Your task to perform on an android device: toggle data saver in the chrome app Image 0: 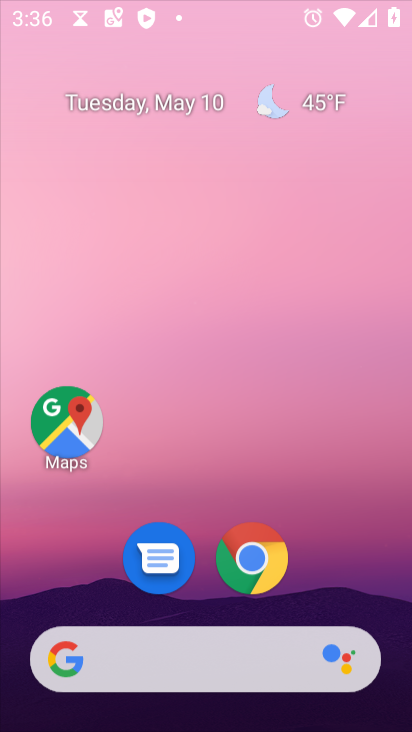
Step 0: press back button
Your task to perform on an android device: toggle data saver in the chrome app Image 1: 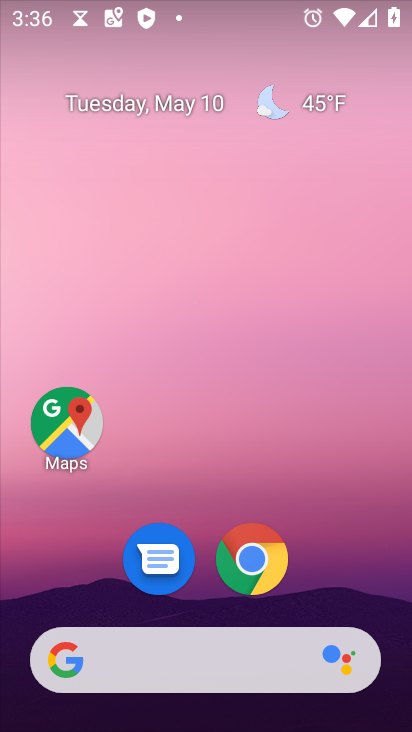
Step 1: drag from (296, 455) to (91, 3)
Your task to perform on an android device: toggle data saver in the chrome app Image 2: 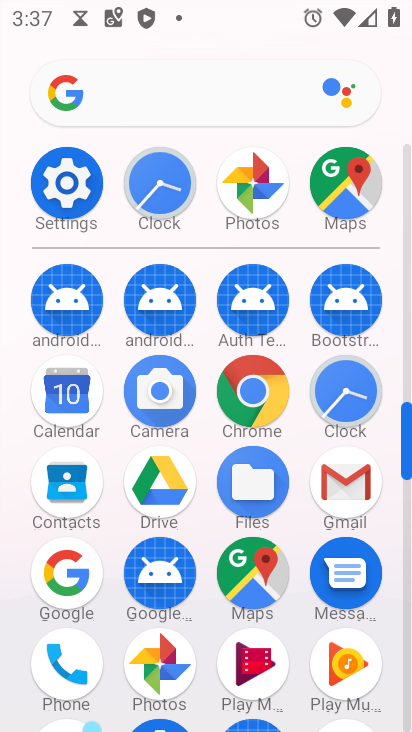
Step 2: click (261, 394)
Your task to perform on an android device: toggle data saver in the chrome app Image 3: 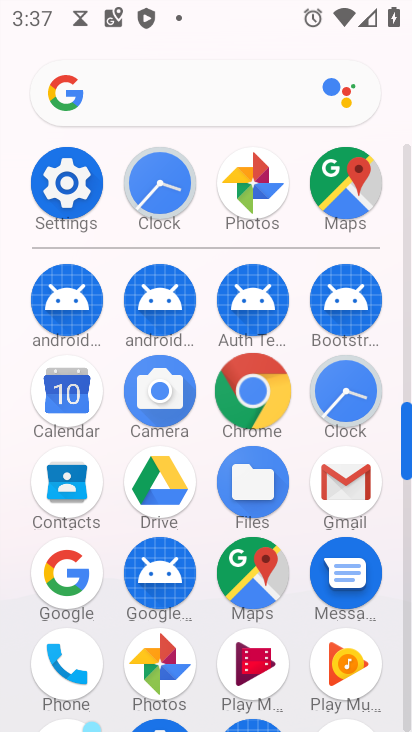
Step 3: click (261, 394)
Your task to perform on an android device: toggle data saver in the chrome app Image 4: 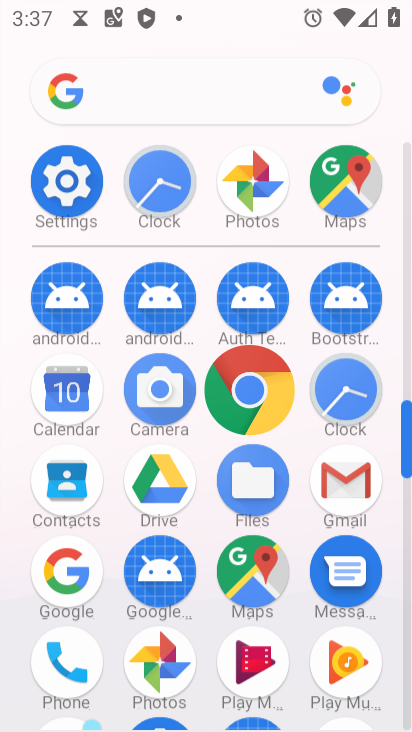
Step 4: click (261, 394)
Your task to perform on an android device: toggle data saver in the chrome app Image 5: 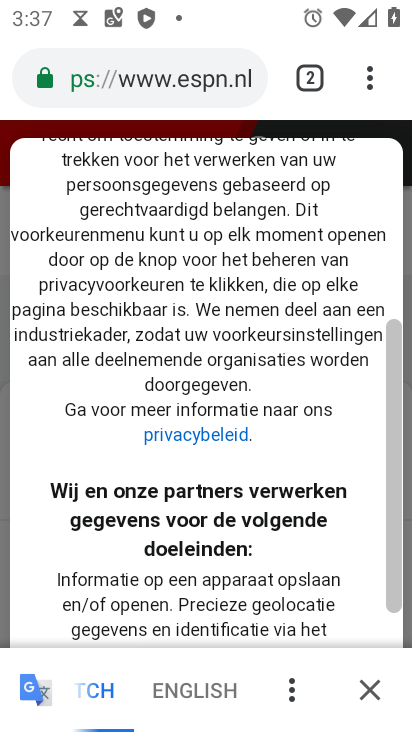
Step 5: press back button
Your task to perform on an android device: toggle data saver in the chrome app Image 6: 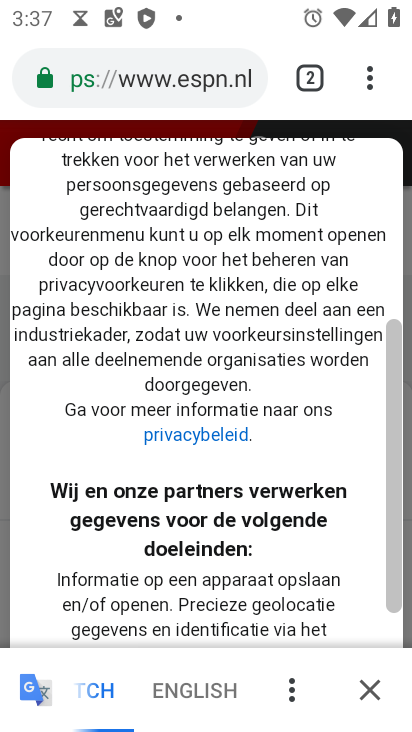
Step 6: press back button
Your task to perform on an android device: toggle data saver in the chrome app Image 7: 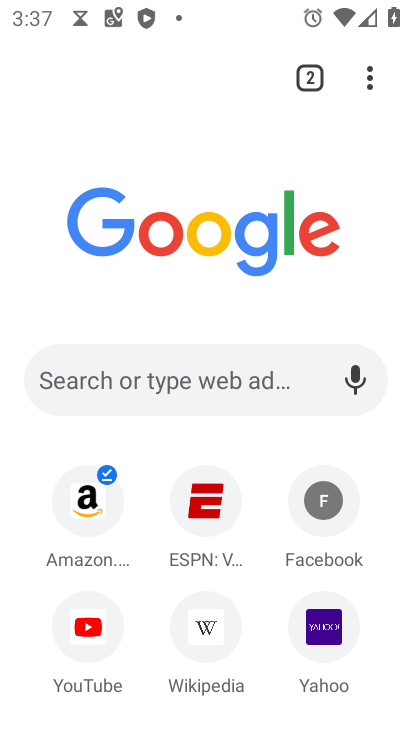
Step 7: press back button
Your task to perform on an android device: toggle data saver in the chrome app Image 8: 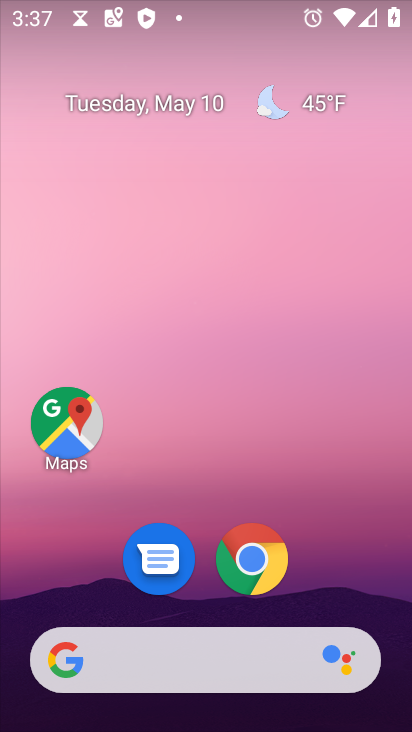
Step 8: drag from (344, 597) to (111, 12)
Your task to perform on an android device: toggle data saver in the chrome app Image 9: 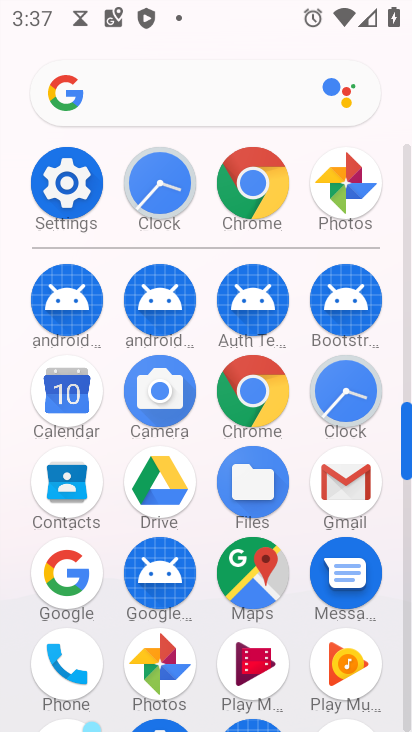
Step 9: click (258, 176)
Your task to perform on an android device: toggle data saver in the chrome app Image 10: 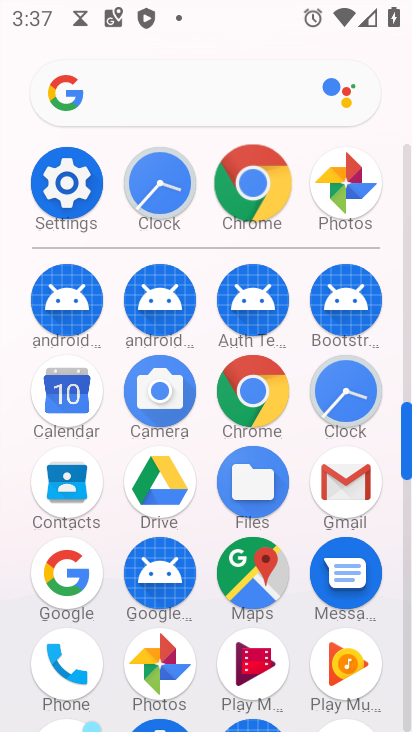
Step 10: click (257, 177)
Your task to perform on an android device: toggle data saver in the chrome app Image 11: 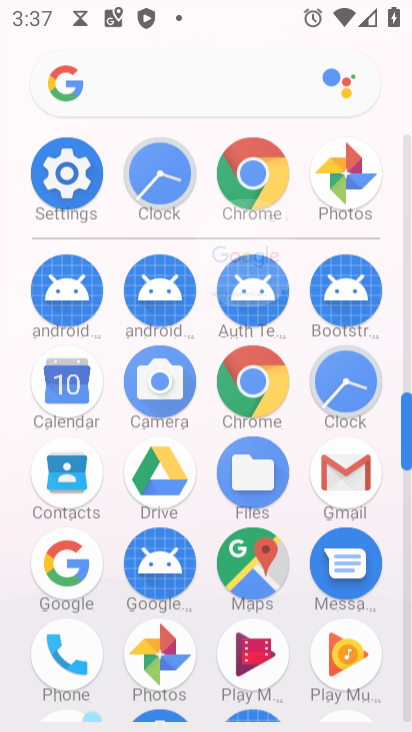
Step 11: click (257, 177)
Your task to perform on an android device: toggle data saver in the chrome app Image 12: 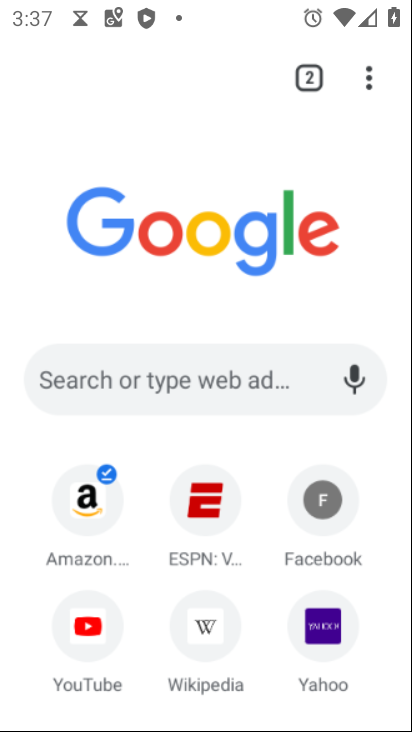
Step 12: click (256, 181)
Your task to perform on an android device: toggle data saver in the chrome app Image 13: 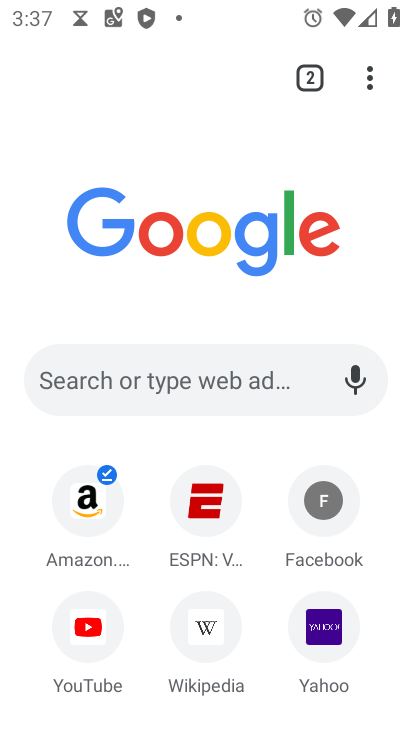
Step 13: drag from (366, 81) to (99, 610)
Your task to perform on an android device: toggle data saver in the chrome app Image 14: 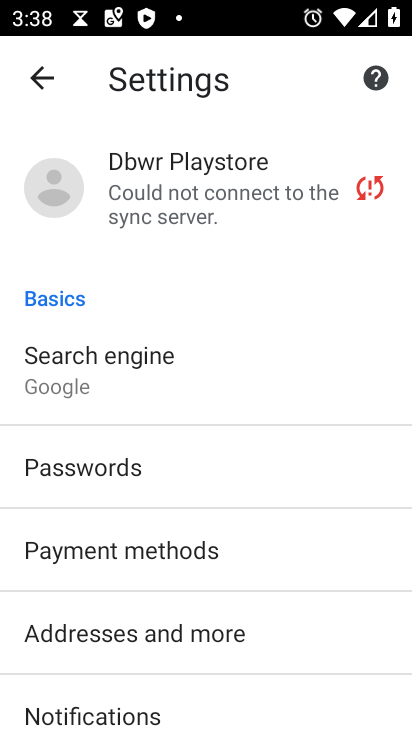
Step 14: drag from (188, 533) to (120, 27)
Your task to perform on an android device: toggle data saver in the chrome app Image 15: 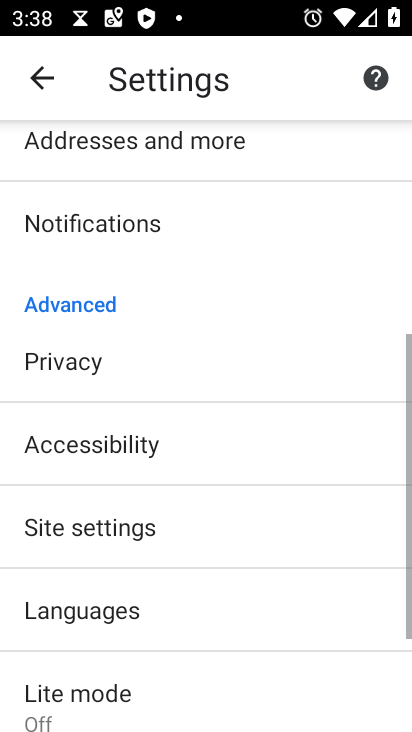
Step 15: drag from (236, 499) to (212, 226)
Your task to perform on an android device: toggle data saver in the chrome app Image 16: 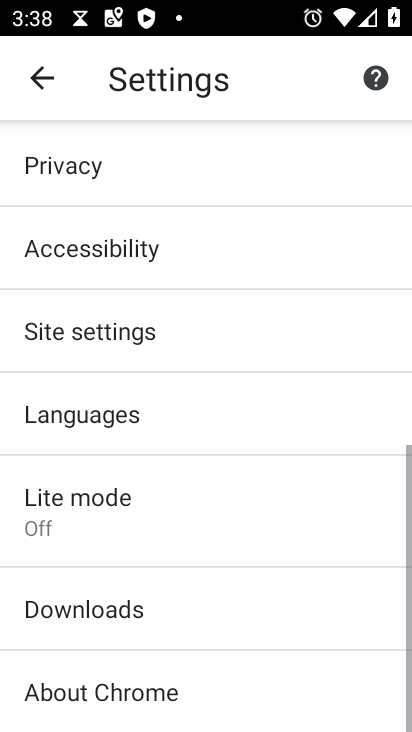
Step 16: drag from (167, 526) to (162, 134)
Your task to perform on an android device: toggle data saver in the chrome app Image 17: 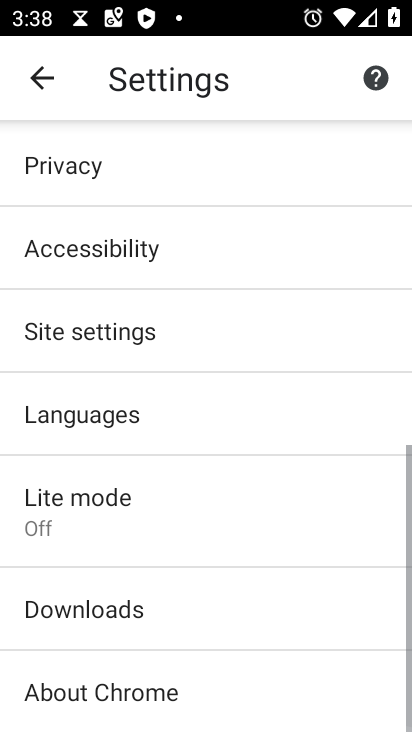
Step 17: drag from (141, 594) to (138, 273)
Your task to perform on an android device: toggle data saver in the chrome app Image 18: 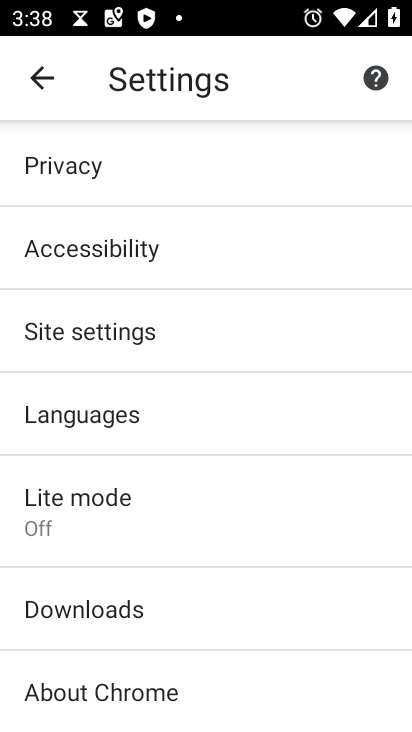
Step 18: click (56, 496)
Your task to perform on an android device: toggle data saver in the chrome app Image 19: 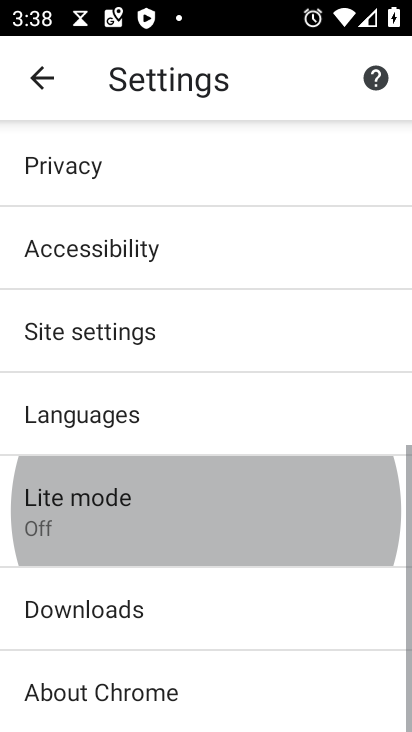
Step 19: click (58, 498)
Your task to perform on an android device: toggle data saver in the chrome app Image 20: 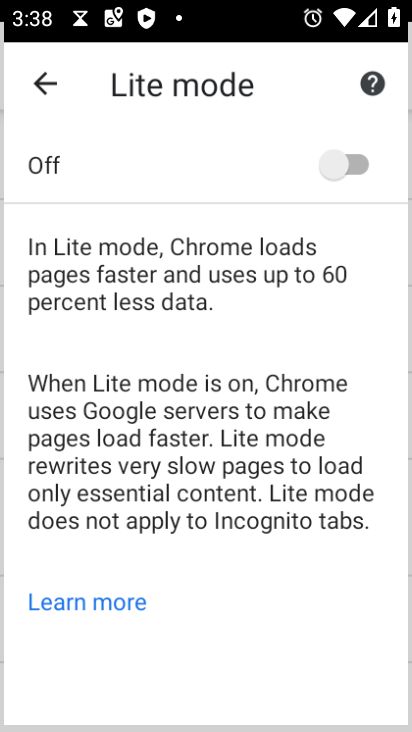
Step 20: click (60, 497)
Your task to perform on an android device: toggle data saver in the chrome app Image 21: 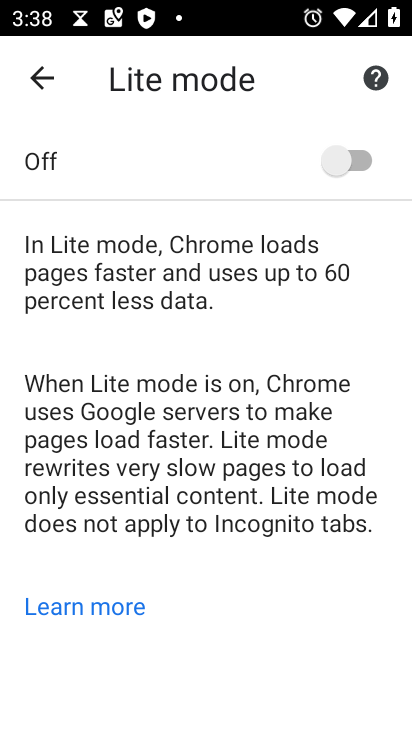
Step 21: click (65, 497)
Your task to perform on an android device: toggle data saver in the chrome app Image 22: 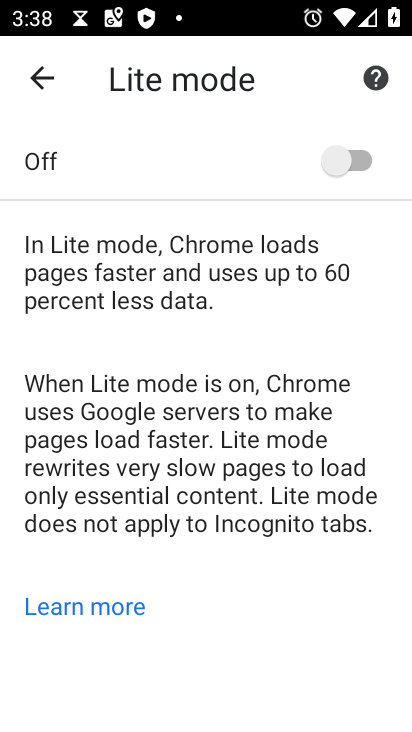
Step 22: click (338, 158)
Your task to perform on an android device: toggle data saver in the chrome app Image 23: 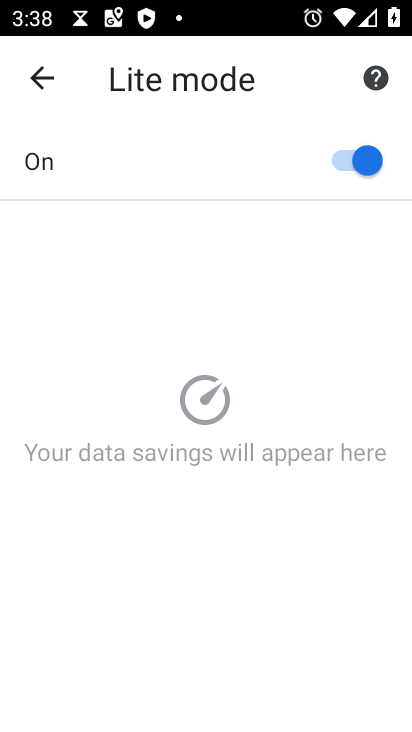
Step 23: task complete